Your task to perform on an android device: Empty the shopping cart on newegg.com. Image 0: 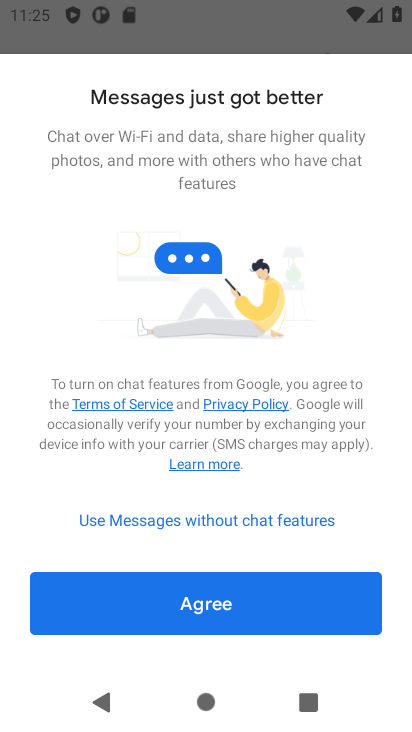
Step 0: press home button
Your task to perform on an android device: Empty the shopping cart on newegg.com. Image 1: 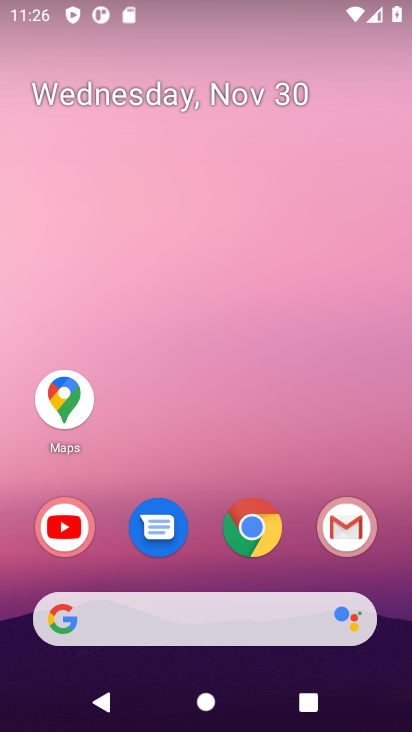
Step 1: click (247, 543)
Your task to perform on an android device: Empty the shopping cart on newegg.com. Image 2: 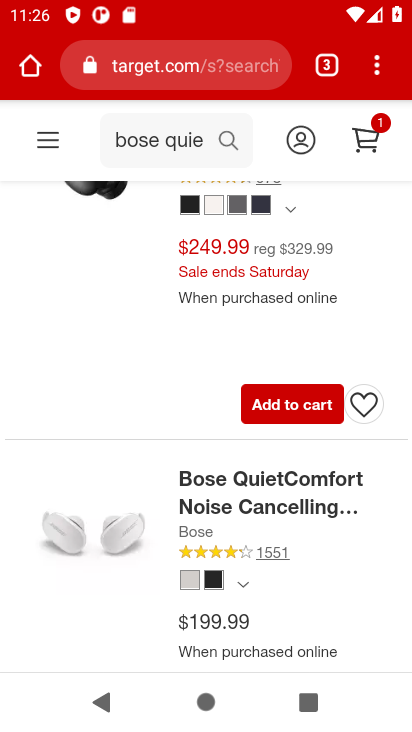
Step 2: click (167, 70)
Your task to perform on an android device: Empty the shopping cart on newegg.com. Image 3: 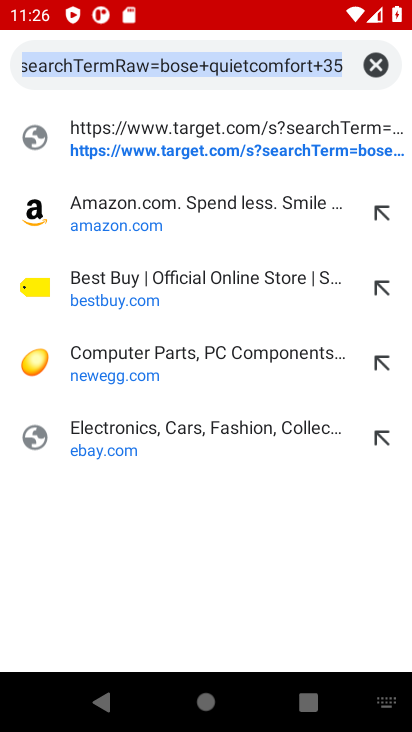
Step 3: click (87, 361)
Your task to perform on an android device: Empty the shopping cart on newegg.com. Image 4: 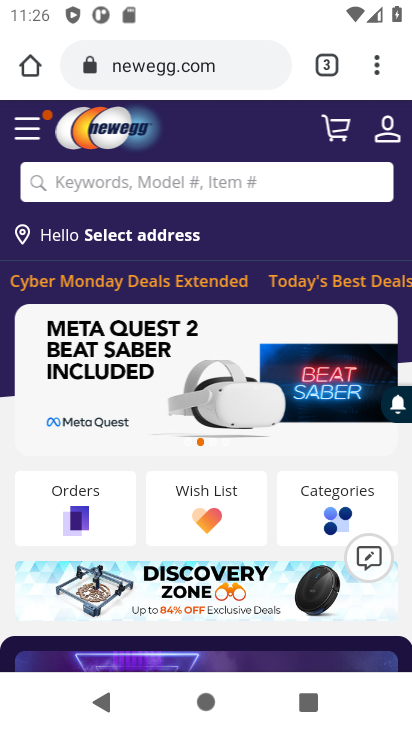
Step 4: click (340, 131)
Your task to perform on an android device: Empty the shopping cart on newegg.com. Image 5: 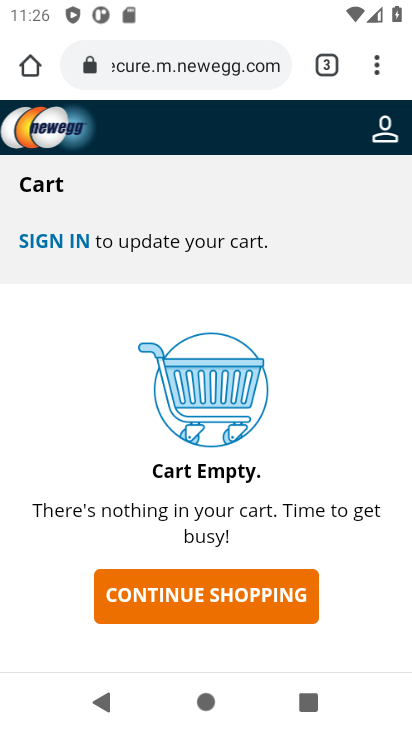
Step 5: task complete